Your task to perform on an android device: Open Amazon Image 0: 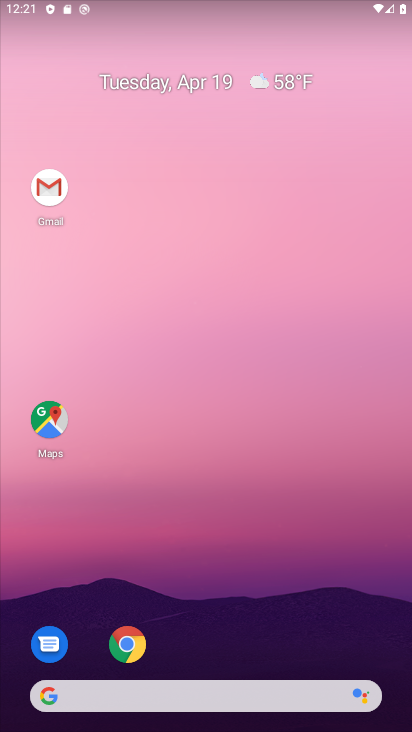
Step 0: click (122, 651)
Your task to perform on an android device: Open Amazon Image 1: 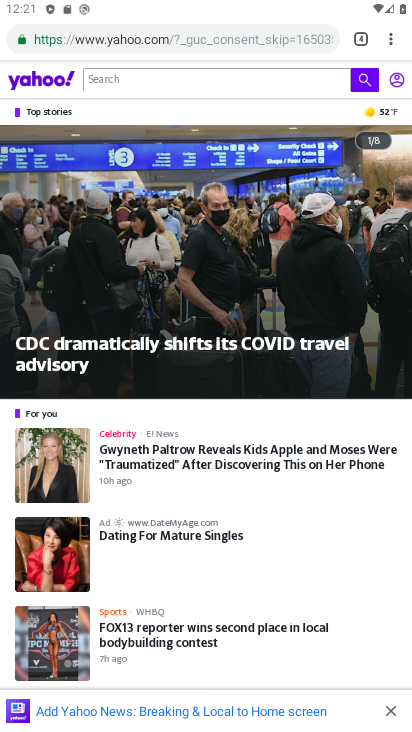
Step 1: click (355, 35)
Your task to perform on an android device: Open Amazon Image 2: 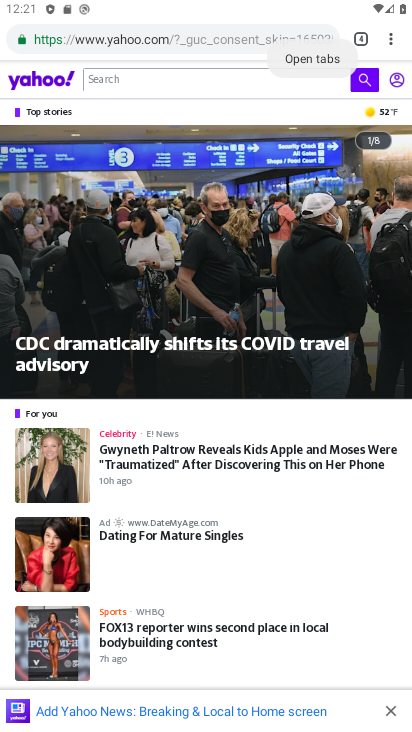
Step 2: click (367, 33)
Your task to perform on an android device: Open Amazon Image 3: 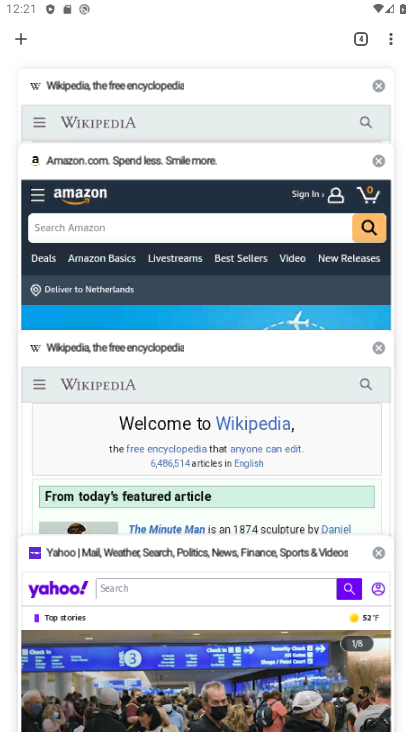
Step 3: click (171, 183)
Your task to perform on an android device: Open Amazon Image 4: 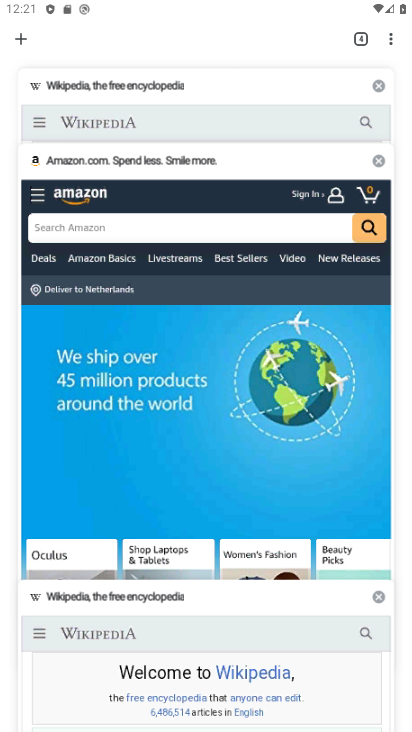
Step 4: click (234, 296)
Your task to perform on an android device: Open Amazon Image 5: 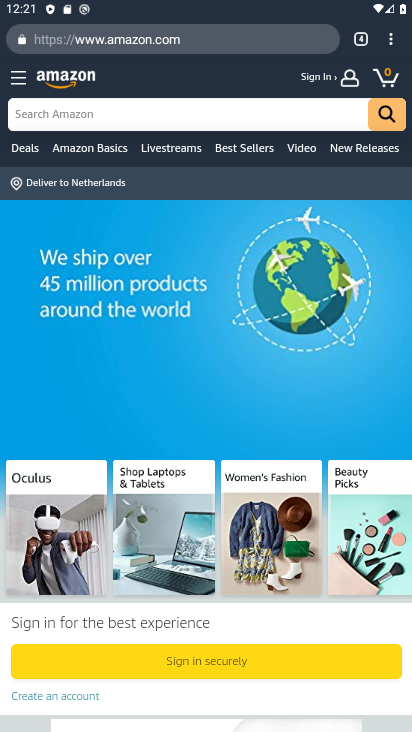
Step 5: task complete